Your task to perform on an android device: all mails in gmail Image 0: 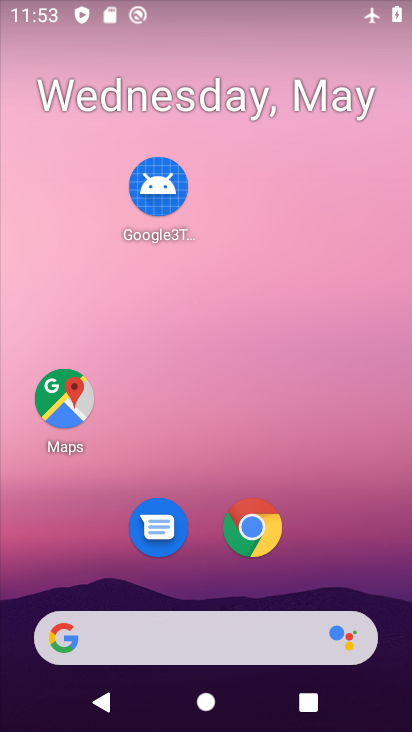
Step 0: drag from (216, 581) to (265, 25)
Your task to perform on an android device: all mails in gmail Image 1: 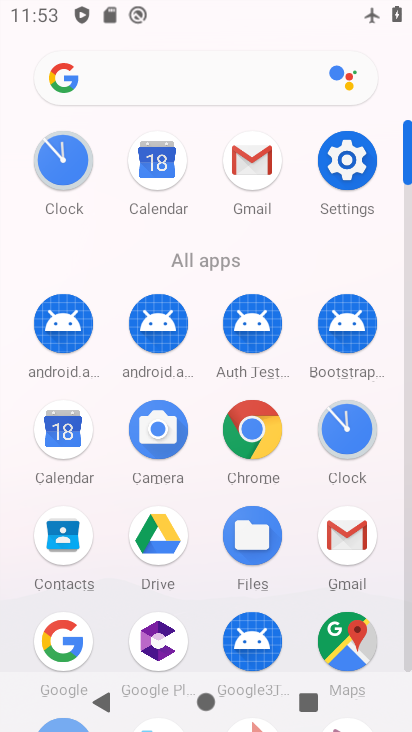
Step 1: click (247, 157)
Your task to perform on an android device: all mails in gmail Image 2: 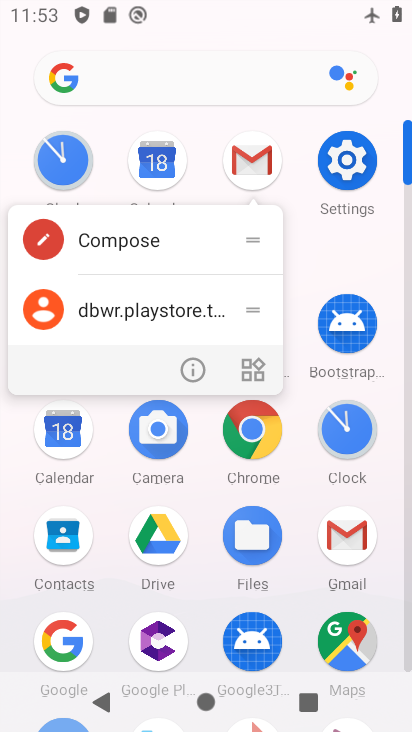
Step 2: click (249, 157)
Your task to perform on an android device: all mails in gmail Image 3: 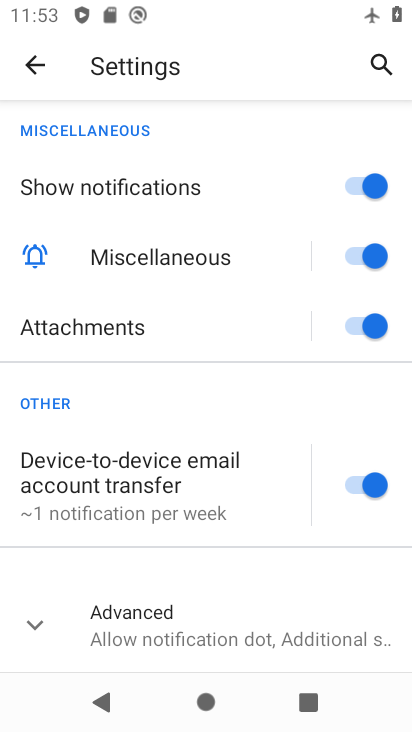
Step 3: press home button
Your task to perform on an android device: all mails in gmail Image 4: 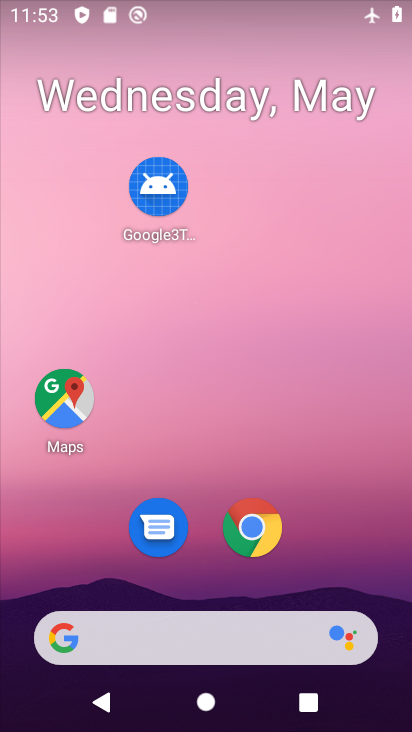
Step 4: drag from (202, 581) to (231, 99)
Your task to perform on an android device: all mails in gmail Image 5: 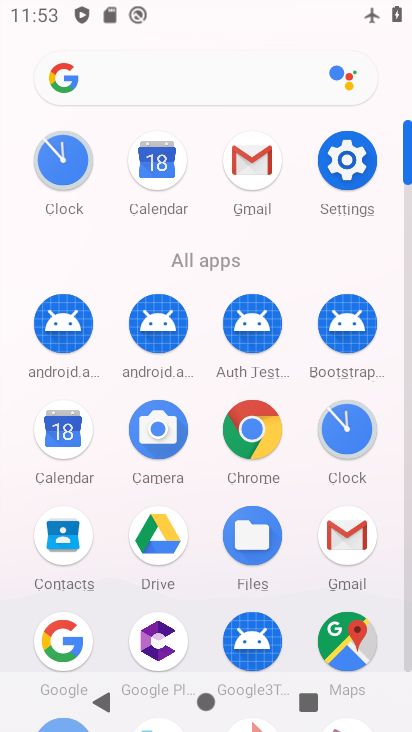
Step 5: click (252, 158)
Your task to perform on an android device: all mails in gmail Image 6: 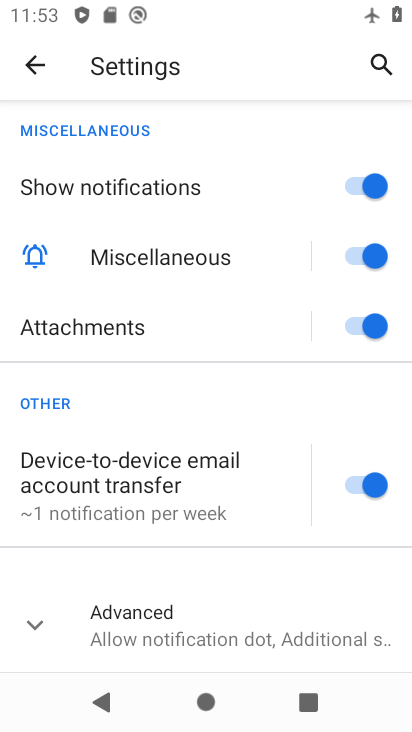
Step 6: click (35, 65)
Your task to perform on an android device: all mails in gmail Image 7: 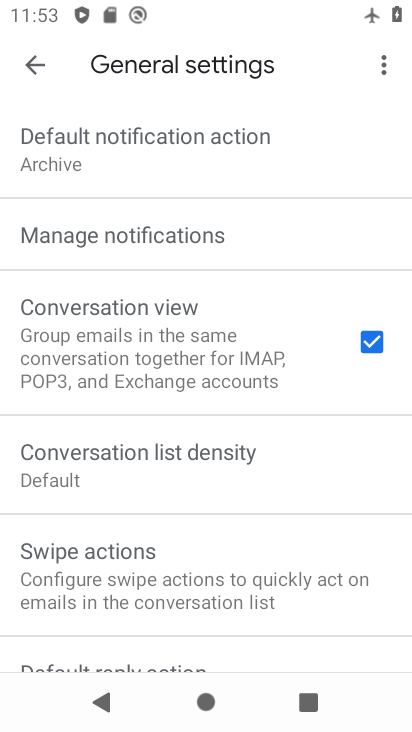
Step 7: click (40, 62)
Your task to perform on an android device: all mails in gmail Image 8: 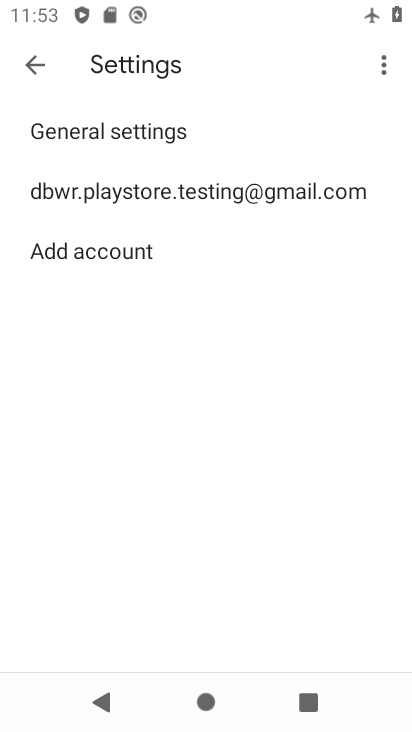
Step 8: click (42, 68)
Your task to perform on an android device: all mails in gmail Image 9: 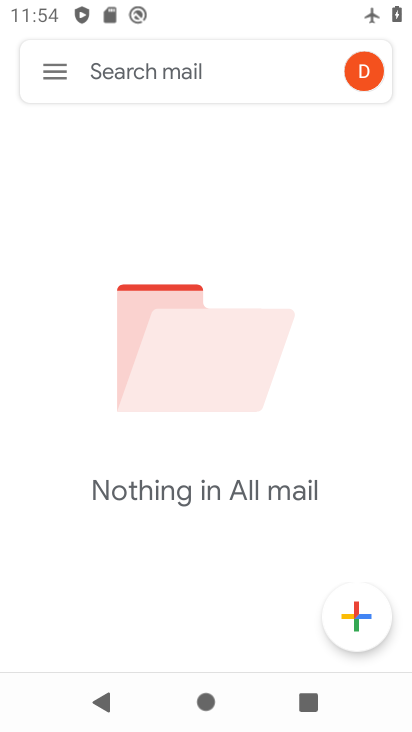
Step 9: task complete